Your task to perform on an android device: Turn on the flashlight Image 0: 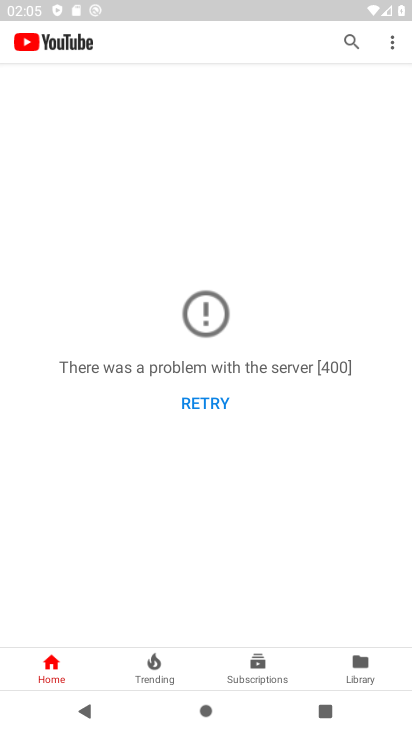
Step 0: press home button
Your task to perform on an android device: Turn on the flashlight Image 1: 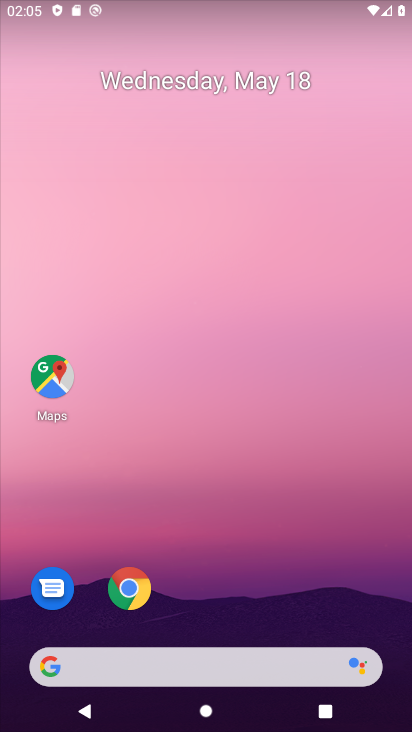
Step 1: drag from (65, 574) to (350, 160)
Your task to perform on an android device: Turn on the flashlight Image 2: 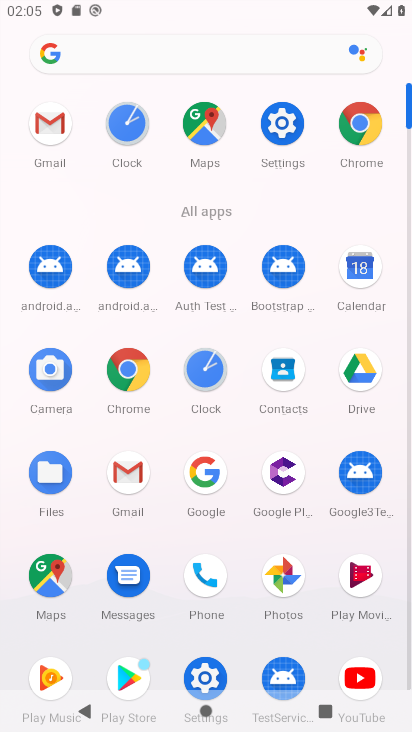
Step 2: drag from (273, 134) to (316, 134)
Your task to perform on an android device: Turn on the flashlight Image 3: 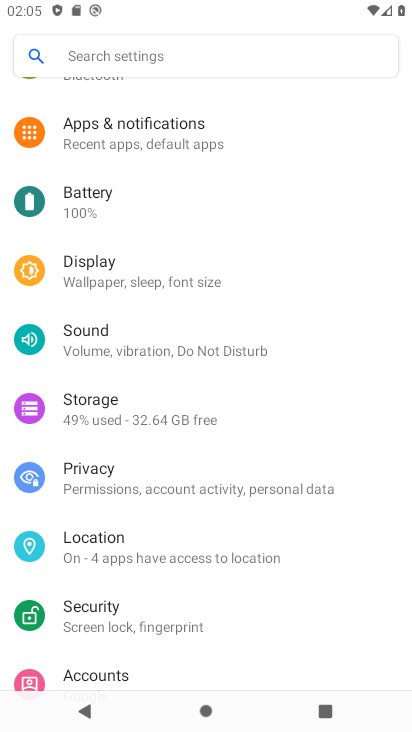
Step 3: click (99, 343)
Your task to perform on an android device: Turn on the flashlight Image 4: 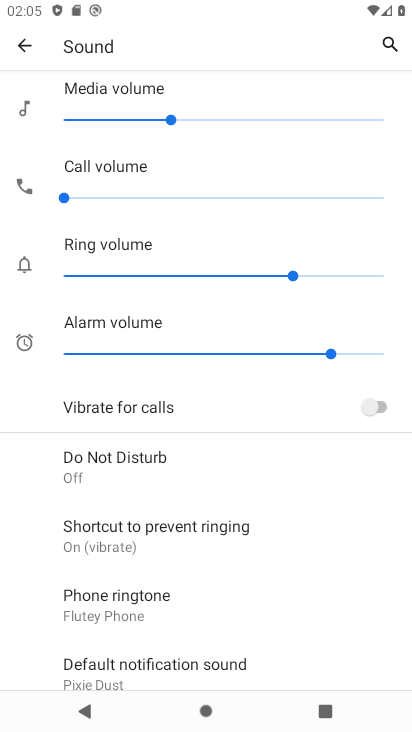
Step 4: task complete